Your task to perform on an android device: change notifications settings Image 0: 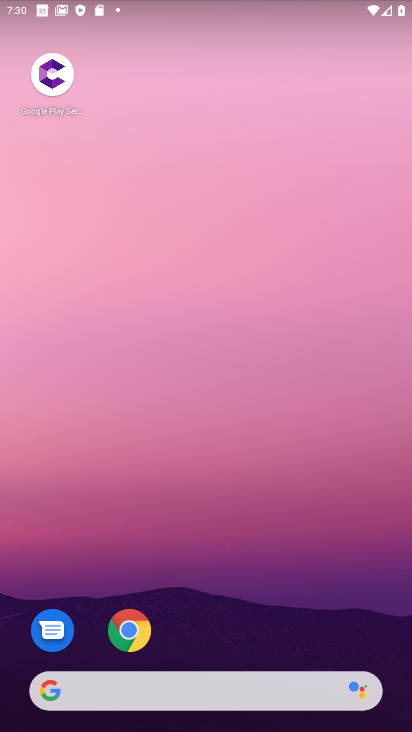
Step 0: drag from (131, 726) to (196, 146)
Your task to perform on an android device: change notifications settings Image 1: 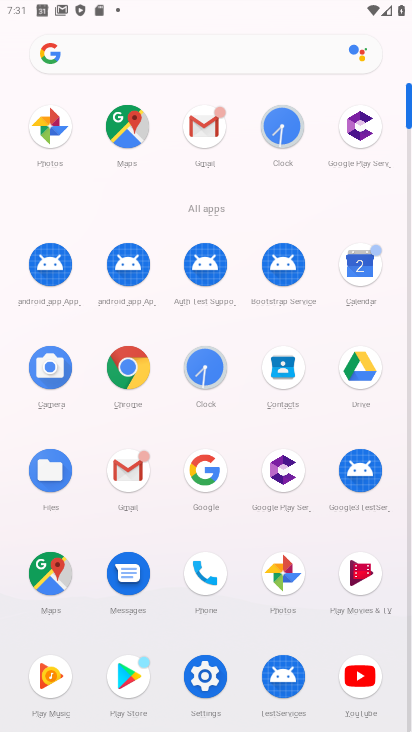
Step 1: click (202, 682)
Your task to perform on an android device: change notifications settings Image 2: 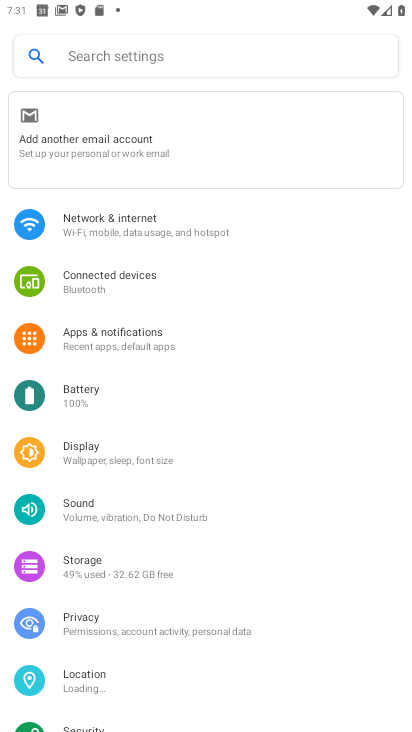
Step 2: click (141, 346)
Your task to perform on an android device: change notifications settings Image 3: 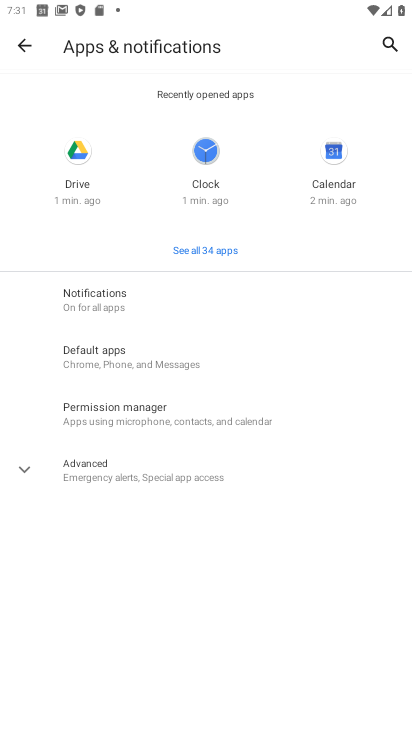
Step 3: click (142, 301)
Your task to perform on an android device: change notifications settings Image 4: 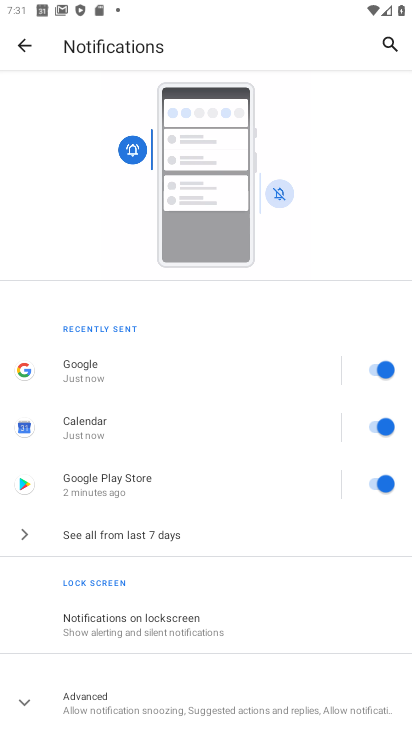
Step 4: click (188, 624)
Your task to perform on an android device: change notifications settings Image 5: 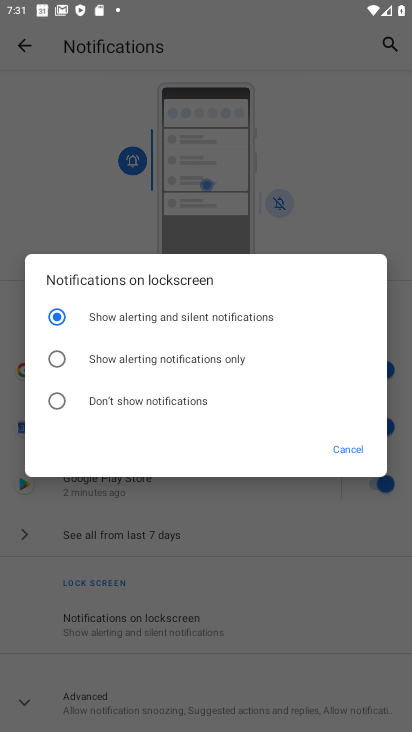
Step 5: click (151, 401)
Your task to perform on an android device: change notifications settings Image 6: 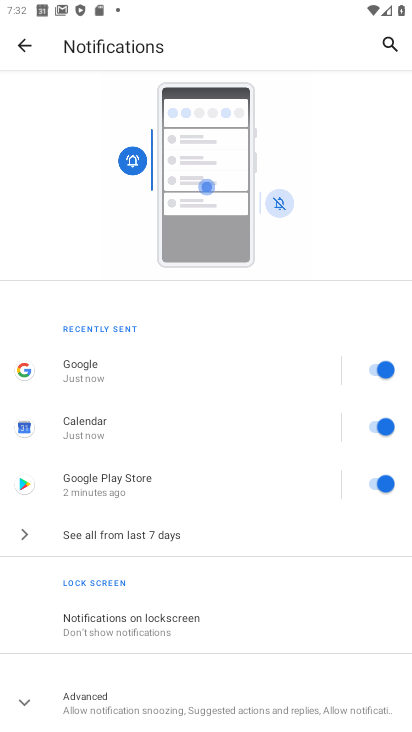
Step 6: task complete